Your task to perform on an android device: Open settings on Google Maps Image 0: 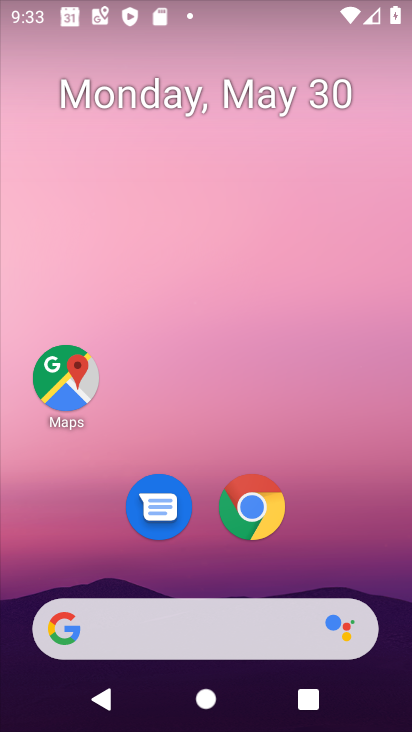
Step 0: click (75, 379)
Your task to perform on an android device: Open settings on Google Maps Image 1: 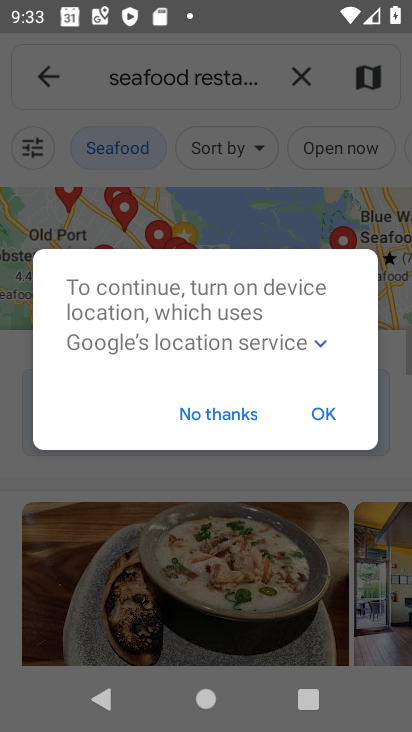
Step 1: click (42, 78)
Your task to perform on an android device: Open settings on Google Maps Image 2: 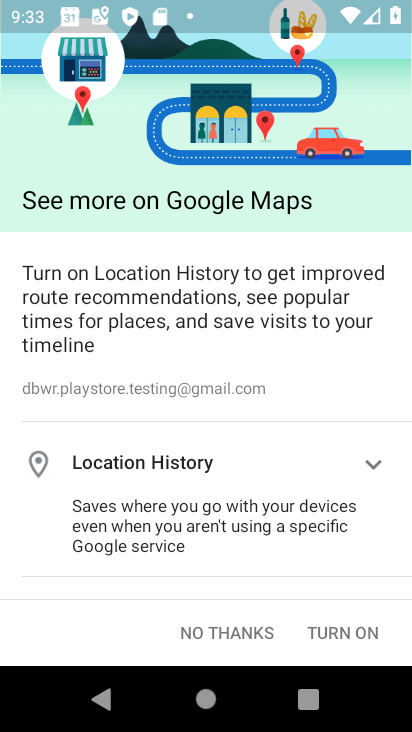
Step 2: click (322, 629)
Your task to perform on an android device: Open settings on Google Maps Image 3: 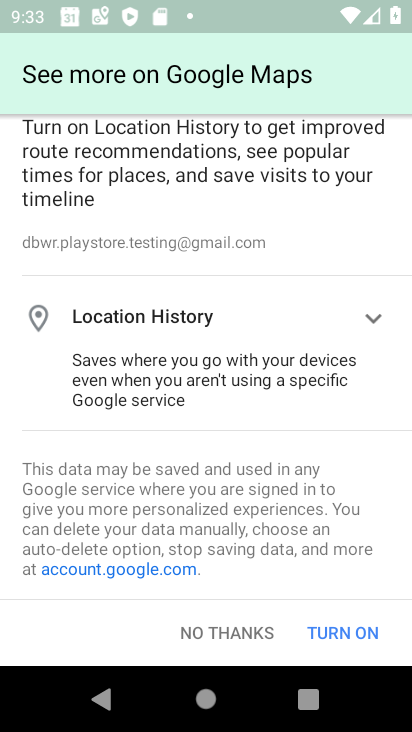
Step 3: click (325, 637)
Your task to perform on an android device: Open settings on Google Maps Image 4: 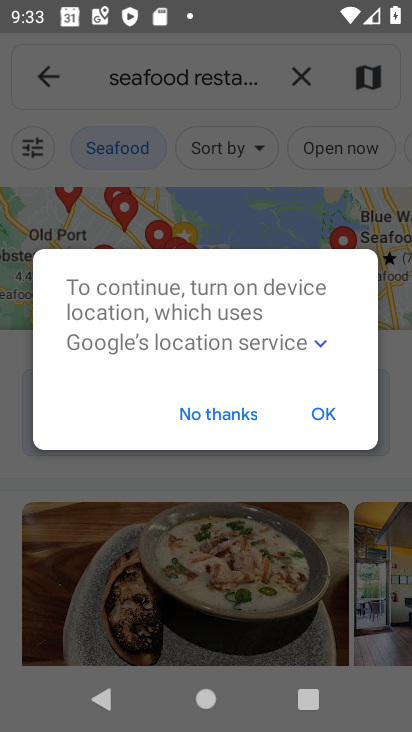
Step 4: click (332, 408)
Your task to perform on an android device: Open settings on Google Maps Image 5: 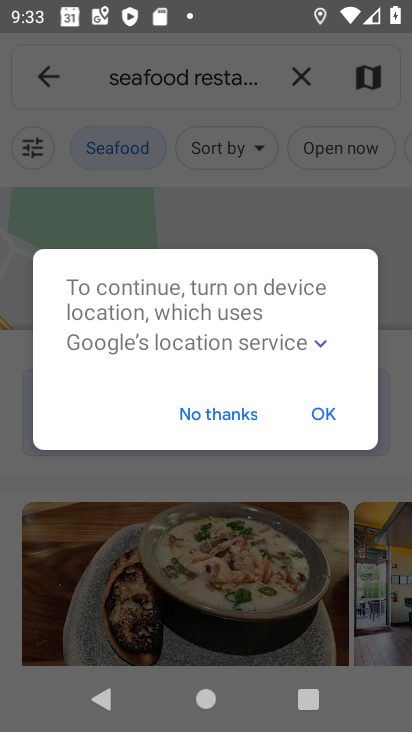
Step 5: click (301, 88)
Your task to perform on an android device: Open settings on Google Maps Image 6: 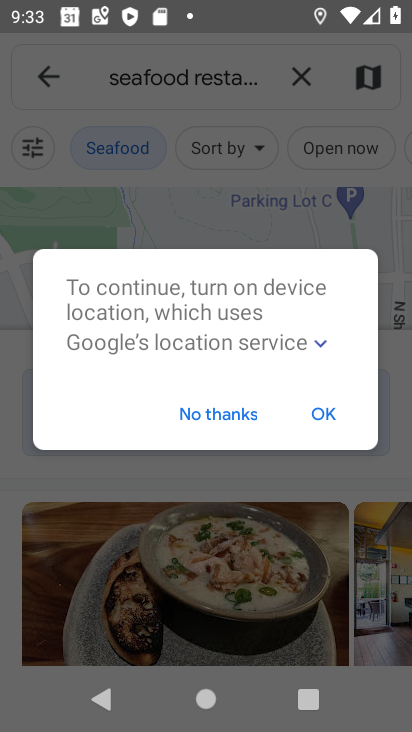
Step 6: click (186, 416)
Your task to perform on an android device: Open settings on Google Maps Image 7: 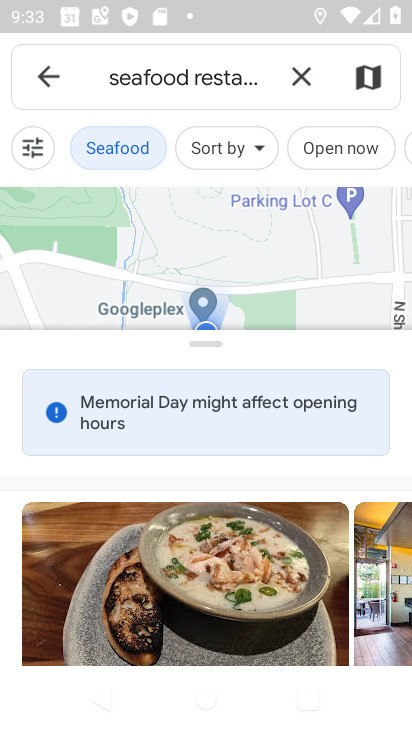
Step 7: click (362, 81)
Your task to perform on an android device: Open settings on Google Maps Image 8: 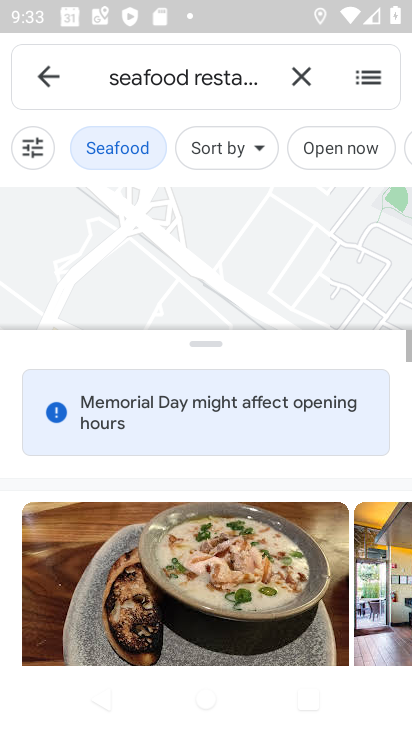
Step 8: click (314, 82)
Your task to perform on an android device: Open settings on Google Maps Image 9: 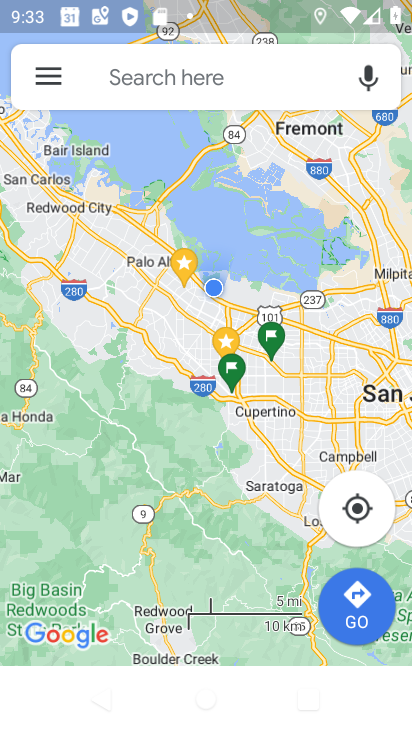
Step 9: click (48, 88)
Your task to perform on an android device: Open settings on Google Maps Image 10: 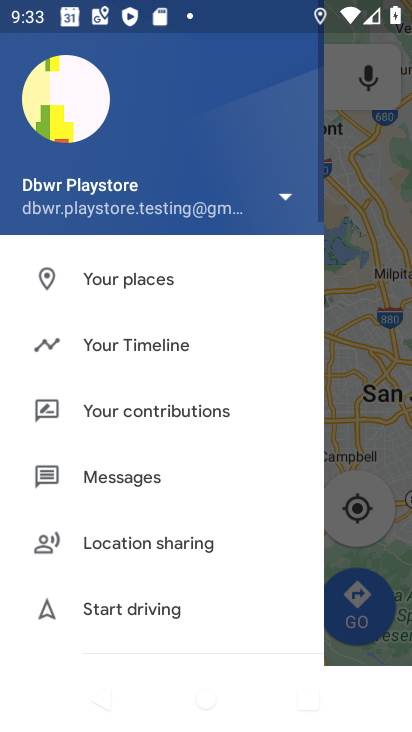
Step 10: drag from (106, 613) to (110, 252)
Your task to perform on an android device: Open settings on Google Maps Image 11: 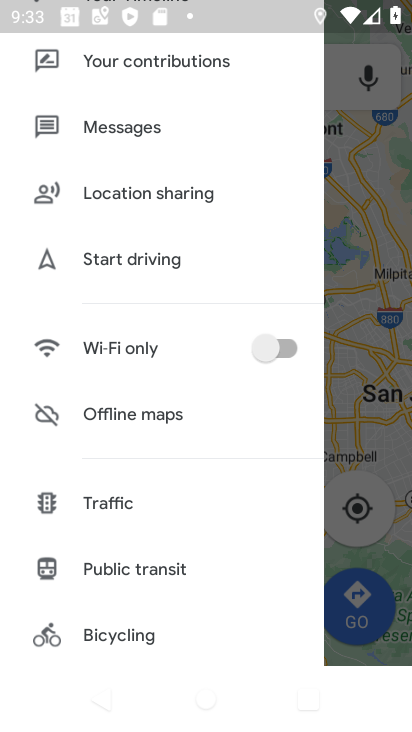
Step 11: drag from (108, 651) to (108, 233)
Your task to perform on an android device: Open settings on Google Maps Image 12: 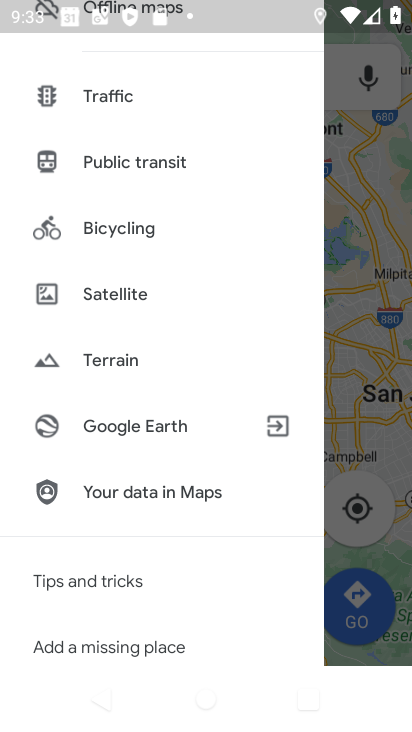
Step 12: drag from (106, 647) to (144, 287)
Your task to perform on an android device: Open settings on Google Maps Image 13: 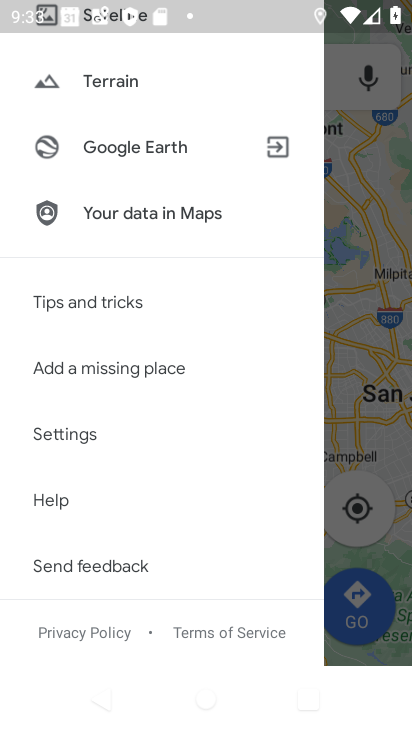
Step 13: click (68, 443)
Your task to perform on an android device: Open settings on Google Maps Image 14: 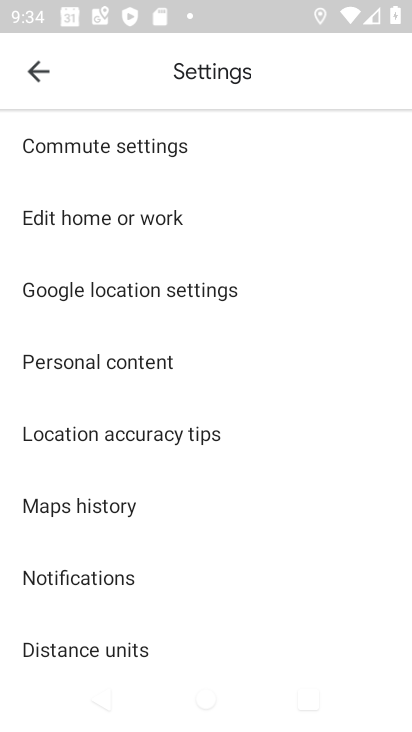
Step 14: task complete